Your task to perform on an android device: Open calendar and show me the second week of next month Image 0: 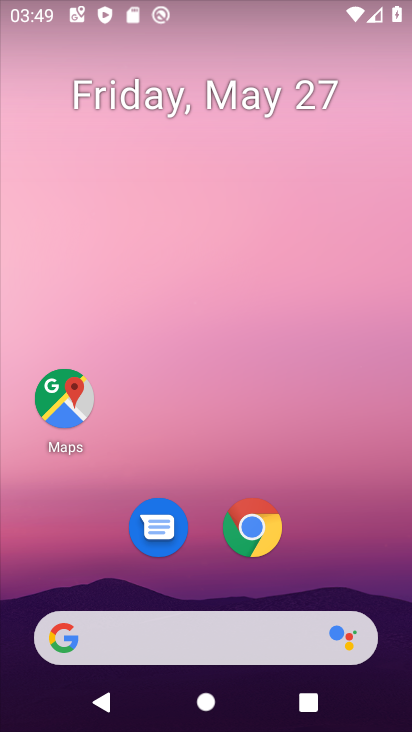
Step 0: drag from (374, 557) to (367, 7)
Your task to perform on an android device: Open calendar and show me the second week of next month Image 1: 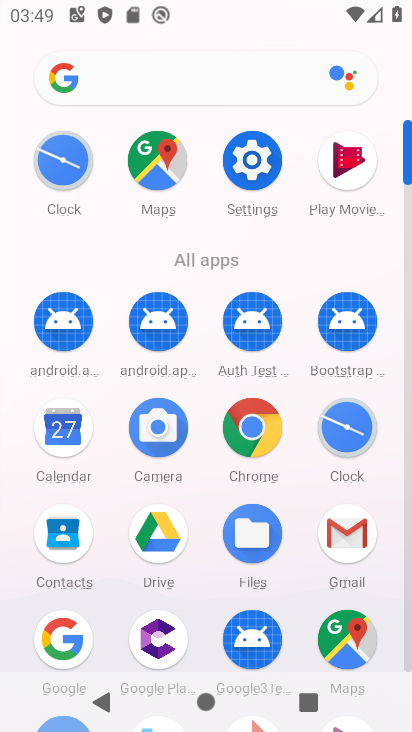
Step 1: click (61, 424)
Your task to perform on an android device: Open calendar and show me the second week of next month Image 2: 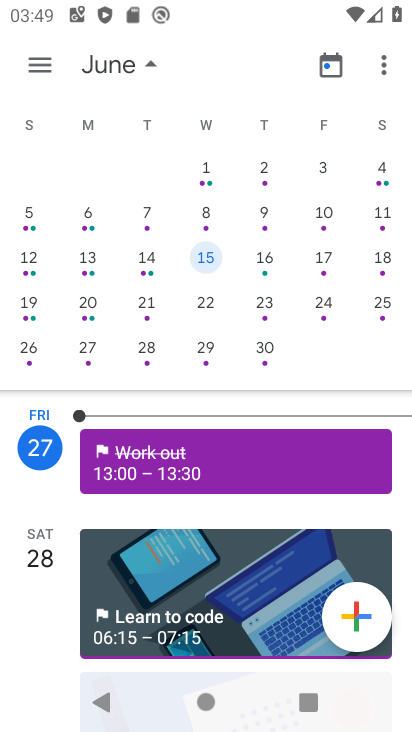
Step 2: click (196, 217)
Your task to perform on an android device: Open calendar and show me the second week of next month Image 3: 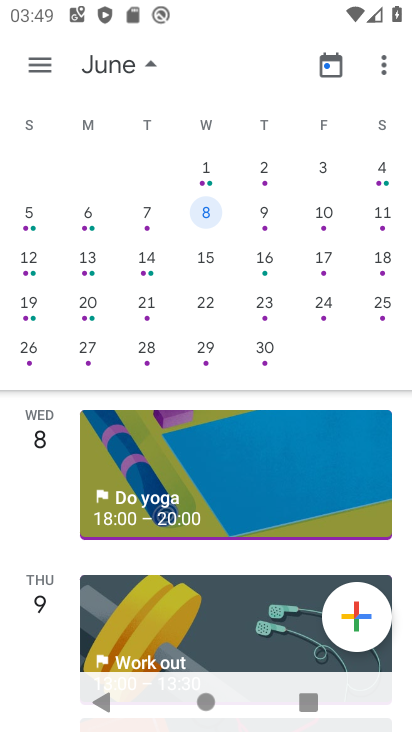
Step 3: task complete